Your task to perform on an android device: turn on airplane mode Image 0: 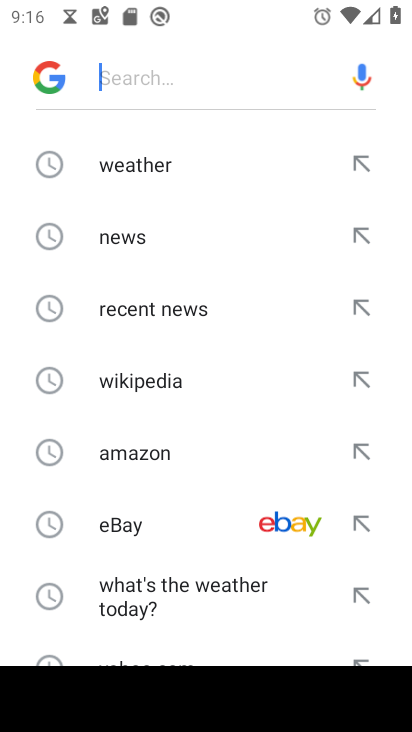
Step 0: press home button
Your task to perform on an android device: turn on airplane mode Image 1: 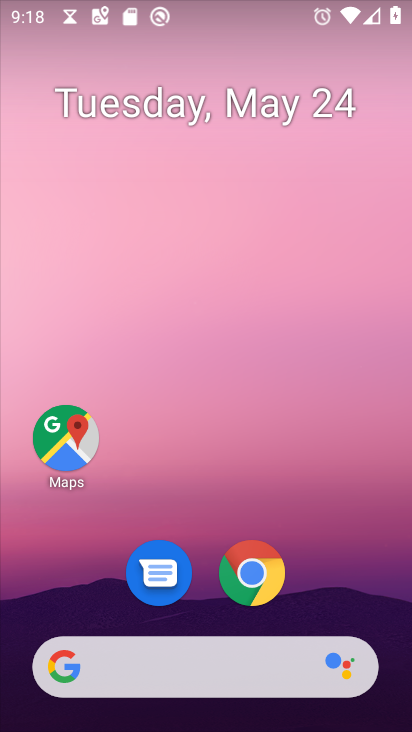
Step 1: drag from (345, 584) to (338, 4)
Your task to perform on an android device: turn on airplane mode Image 2: 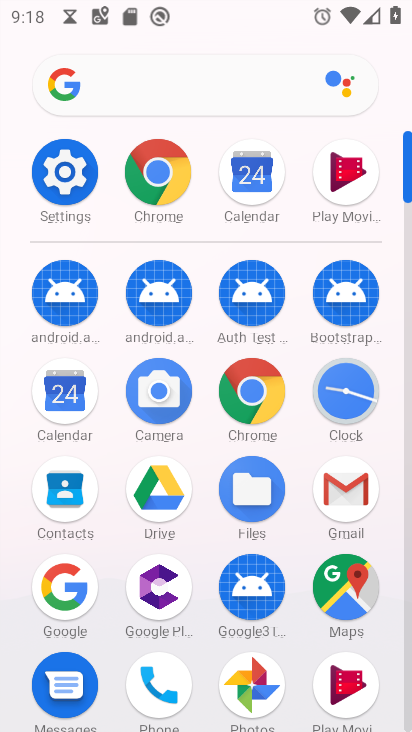
Step 2: click (68, 185)
Your task to perform on an android device: turn on airplane mode Image 3: 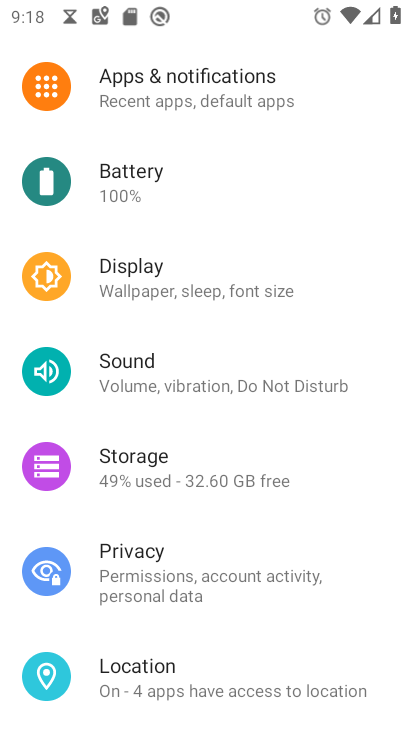
Step 3: drag from (233, 203) to (317, 588)
Your task to perform on an android device: turn on airplane mode Image 4: 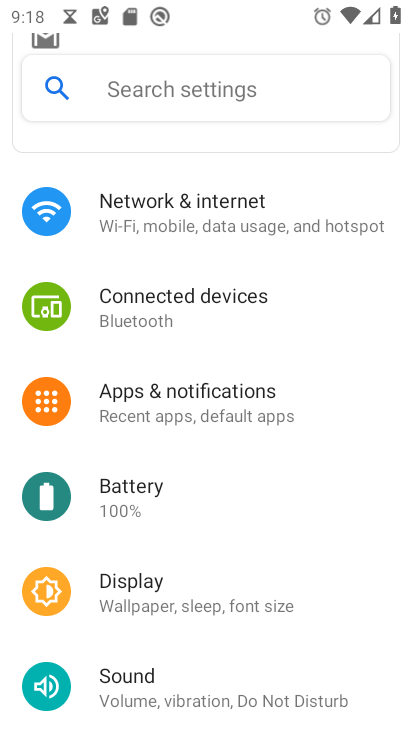
Step 4: drag from (186, 169) to (231, 598)
Your task to perform on an android device: turn on airplane mode Image 5: 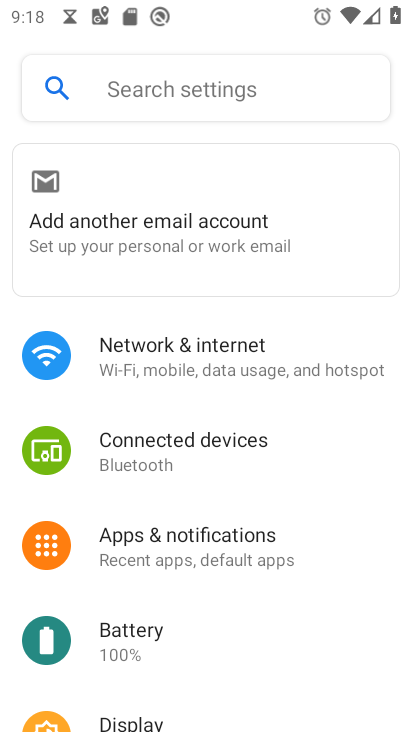
Step 5: click (174, 356)
Your task to perform on an android device: turn on airplane mode Image 6: 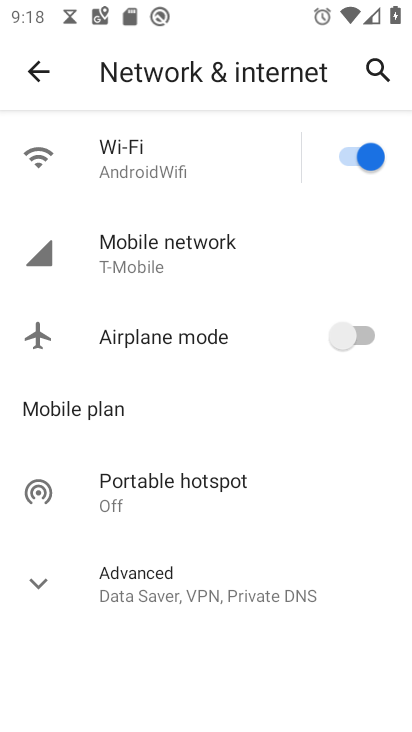
Step 6: click (358, 337)
Your task to perform on an android device: turn on airplane mode Image 7: 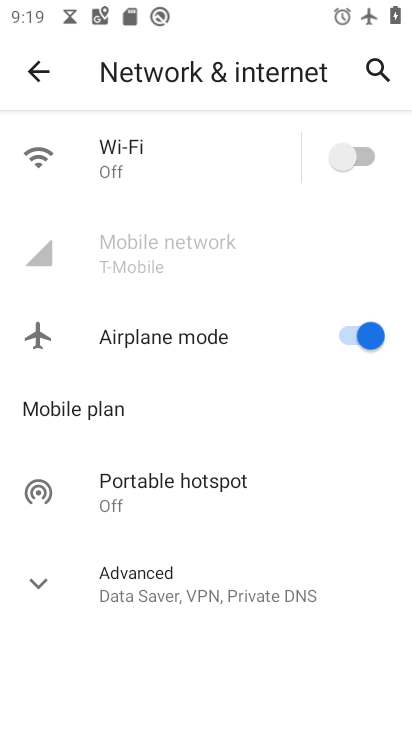
Step 7: task complete